Your task to perform on an android device: toggle location history Image 0: 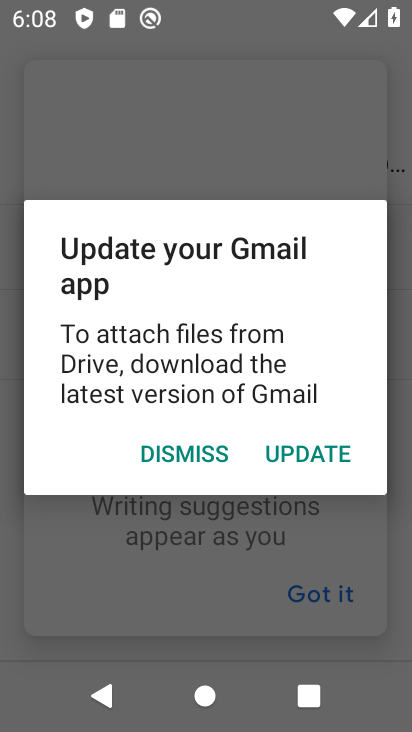
Step 0: press home button
Your task to perform on an android device: toggle location history Image 1: 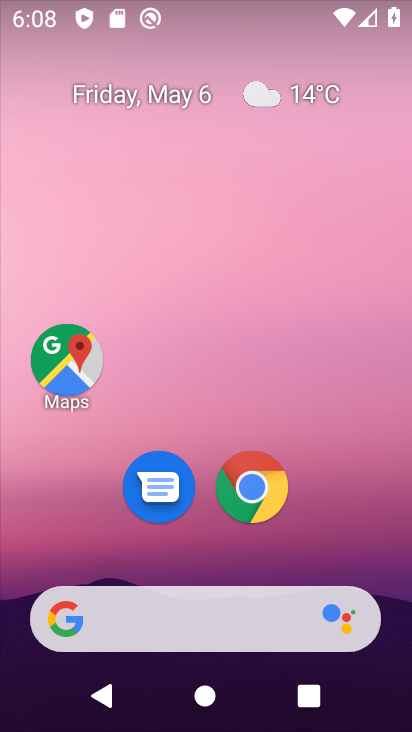
Step 1: drag from (326, 539) to (338, 136)
Your task to perform on an android device: toggle location history Image 2: 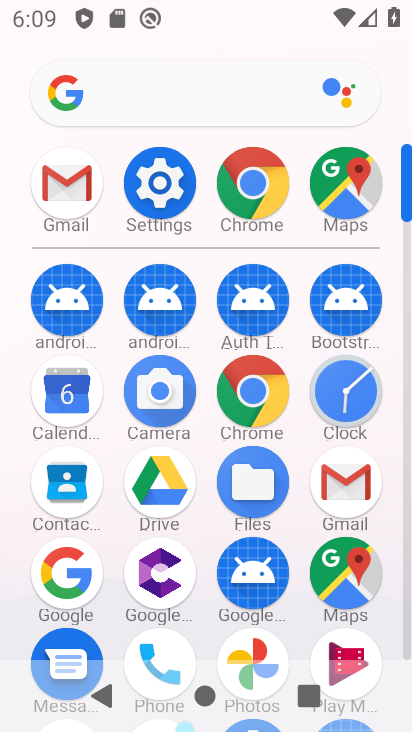
Step 2: click (339, 574)
Your task to perform on an android device: toggle location history Image 3: 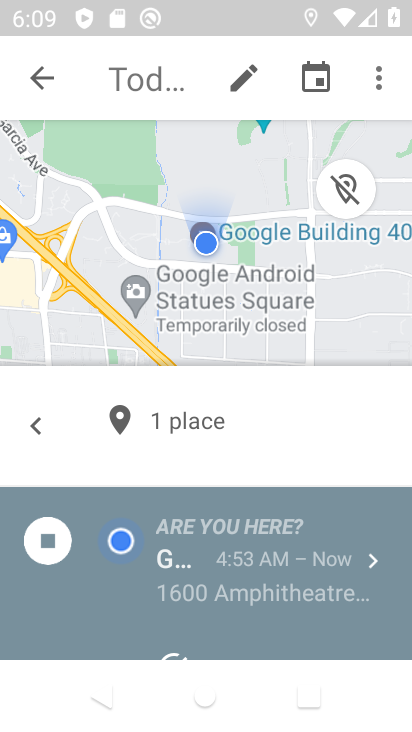
Step 3: click (377, 73)
Your task to perform on an android device: toggle location history Image 4: 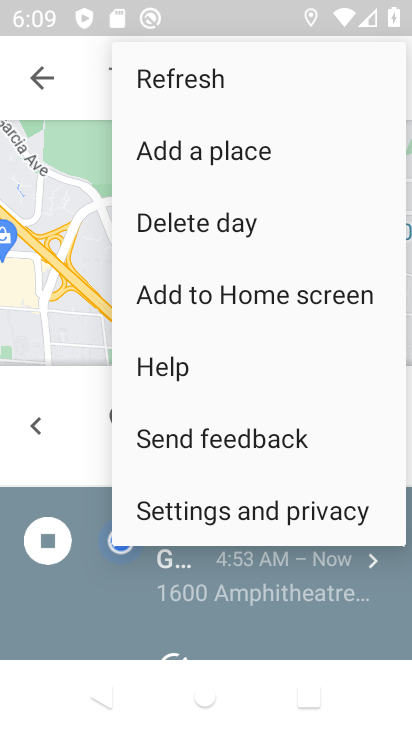
Step 4: click (301, 509)
Your task to perform on an android device: toggle location history Image 5: 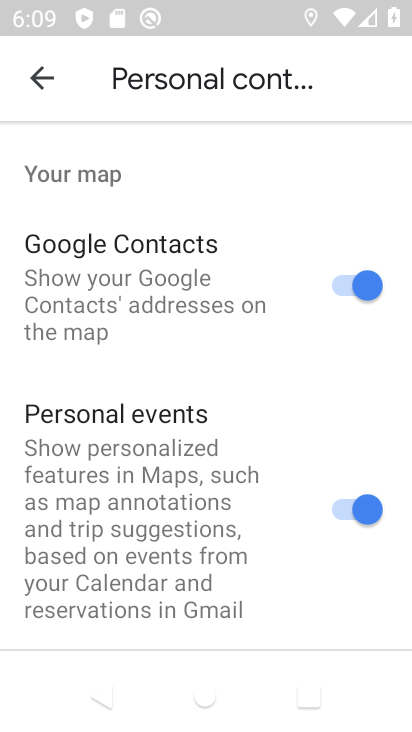
Step 5: drag from (255, 410) to (281, 195)
Your task to perform on an android device: toggle location history Image 6: 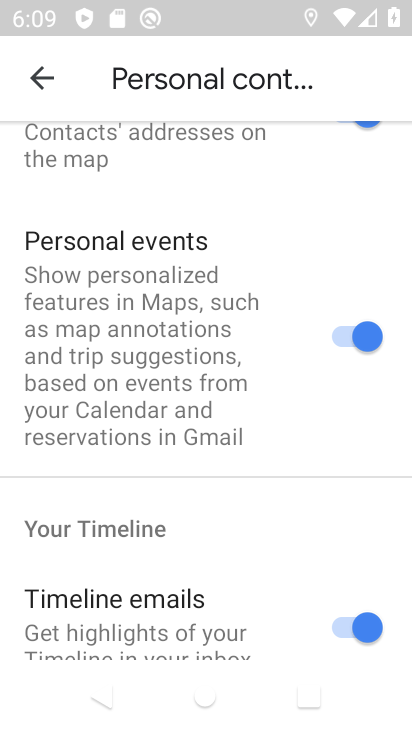
Step 6: drag from (253, 555) to (291, 221)
Your task to perform on an android device: toggle location history Image 7: 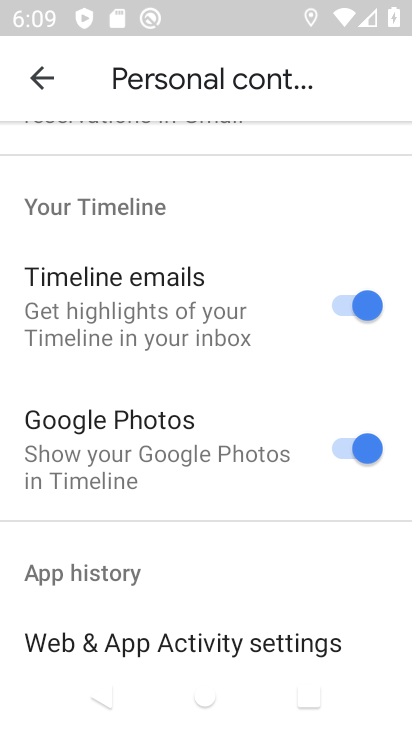
Step 7: drag from (226, 559) to (262, 281)
Your task to perform on an android device: toggle location history Image 8: 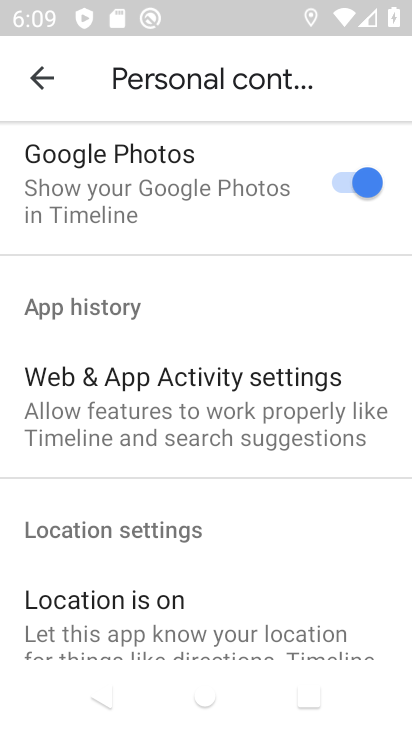
Step 8: drag from (264, 572) to (276, 253)
Your task to perform on an android device: toggle location history Image 9: 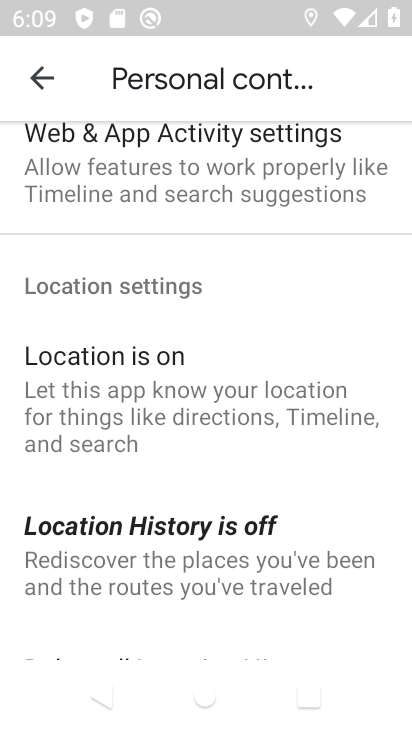
Step 9: click (199, 537)
Your task to perform on an android device: toggle location history Image 10: 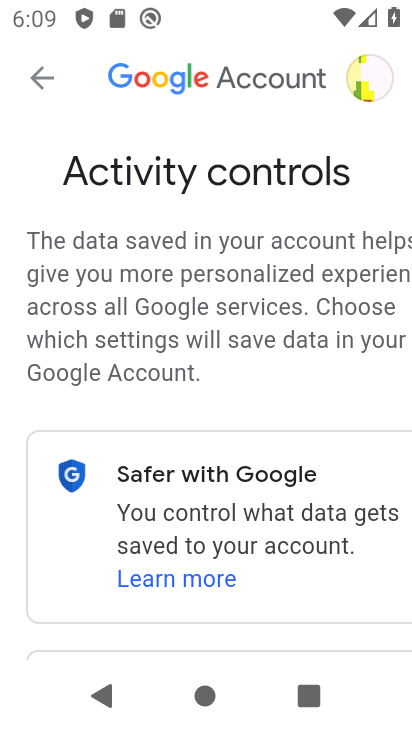
Step 10: drag from (283, 621) to (315, 147)
Your task to perform on an android device: toggle location history Image 11: 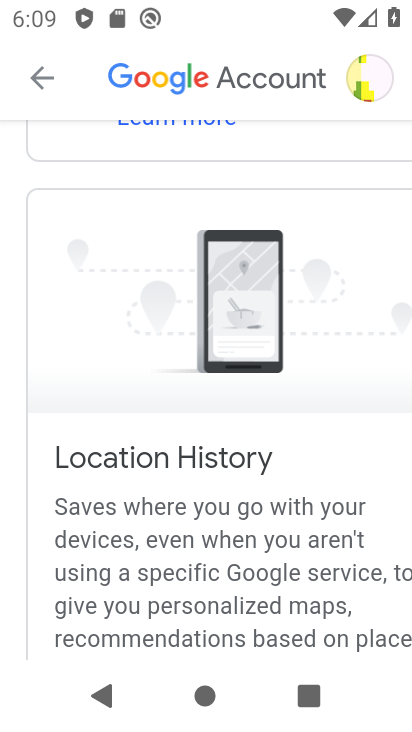
Step 11: drag from (250, 568) to (324, 263)
Your task to perform on an android device: toggle location history Image 12: 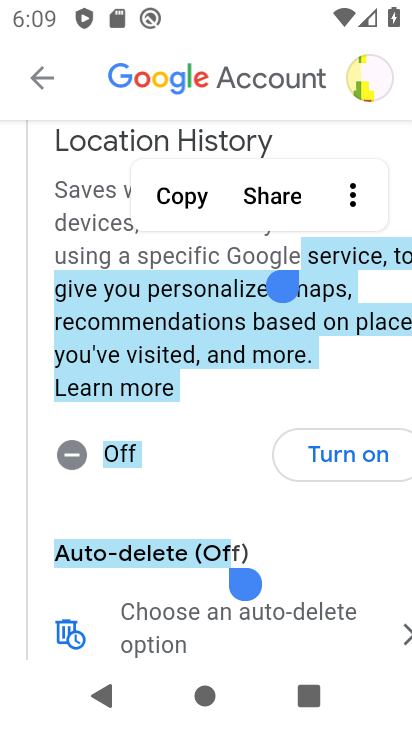
Step 12: click (358, 441)
Your task to perform on an android device: toggle location history Image 13: 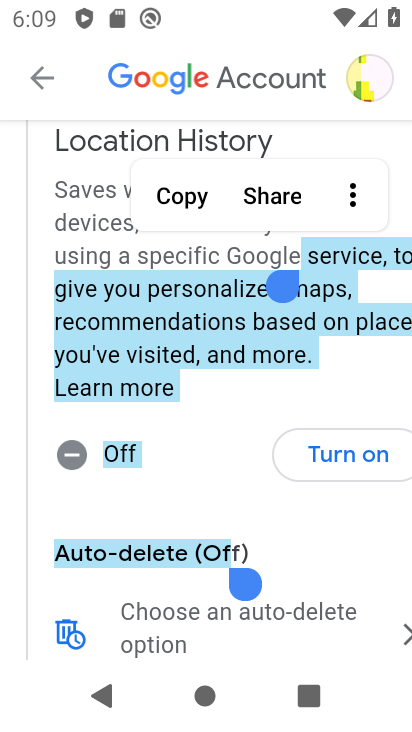
Step 13: click (342, 459)
Your task to perform on an android device: toggle location history Image 14: 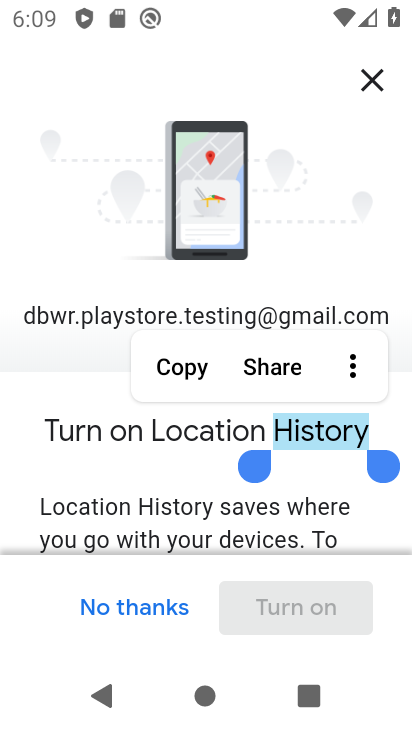
Step 14: click (21, 466)
Your task to perform on an android device: toggle location history Image 15: 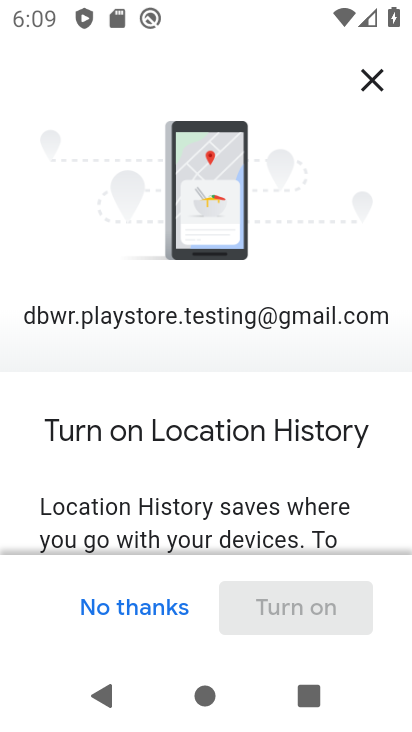
Step 15: drag from (184, 504) to (274, 288)
Your task to perform on an android device: toggle location history Image 16: 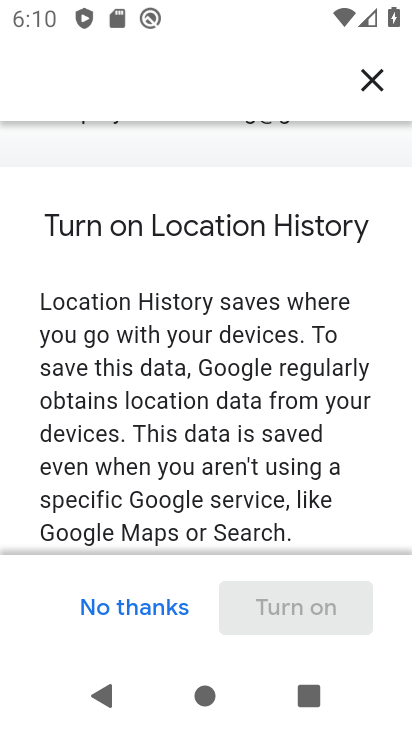
Step 16: click (298, 602)
Your task to perform on an android device: toggle location history Image 17: 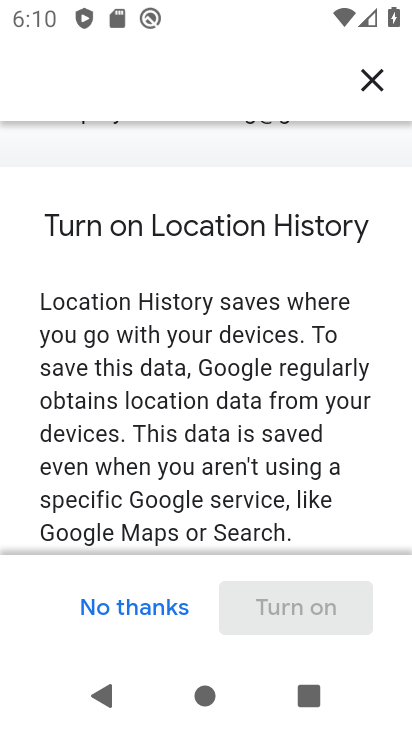
Step 17: drag from (329, 511) to (393, 184)
Your task to perform on an android device: toggle location history Image 18: 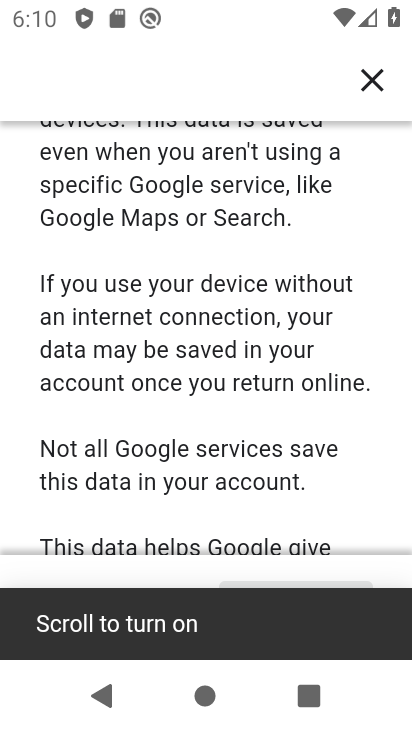
Step 18: drag from (278, 340) to (290, 165)
Your task to perform on an android device: toggle location history Image 19: 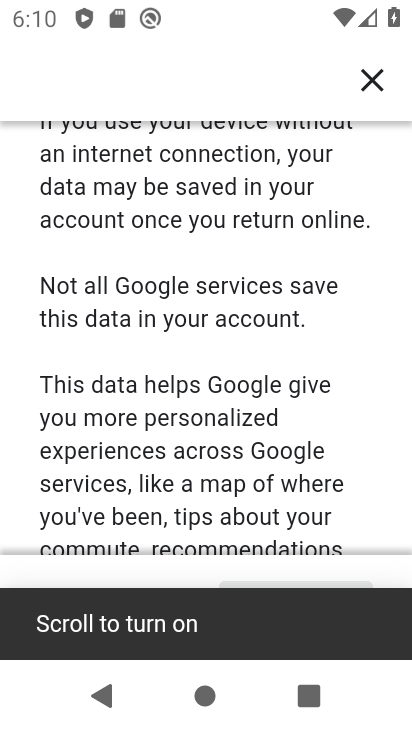
Step 19: drag from (209, 324) to (230, 235)
Your task to perform on an android device: toggle location history Image 20: 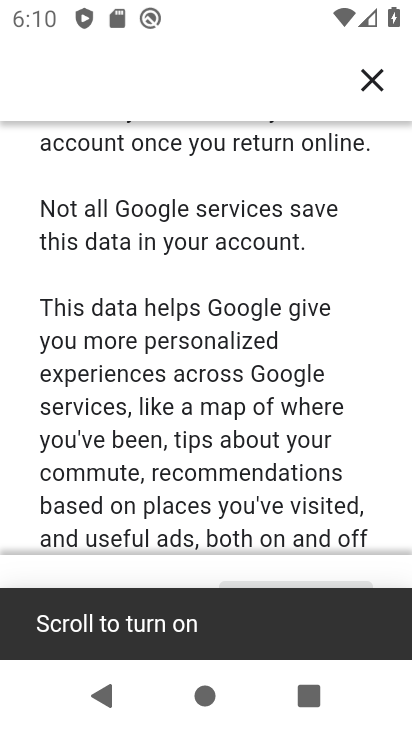
Step 20: click (255, 182)
Your task to perform on an android device: toggle location history Image 21: 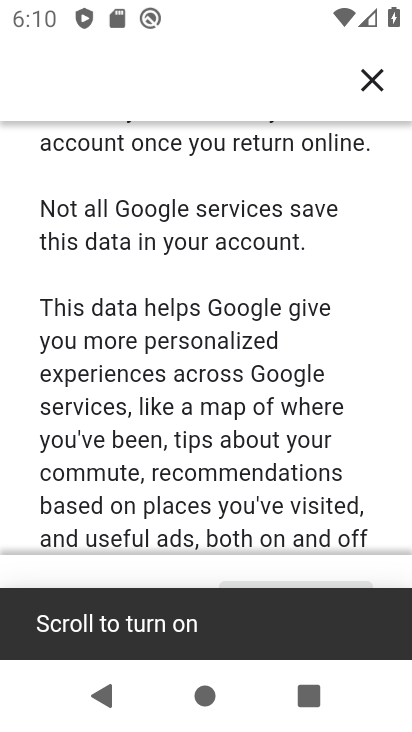
Step 21: click (351, 560)
Your task to perform on an android device: toggle location history Image 22: 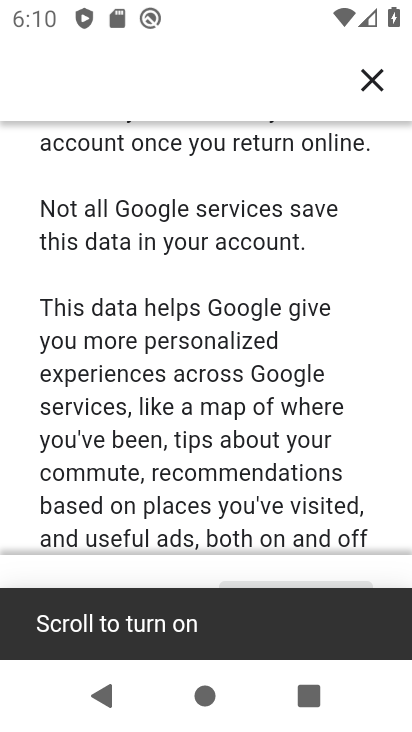
Step 22: drag from (364, 508) to (380, 170)
Your task to perform on an android device: toggle location history Image 23: 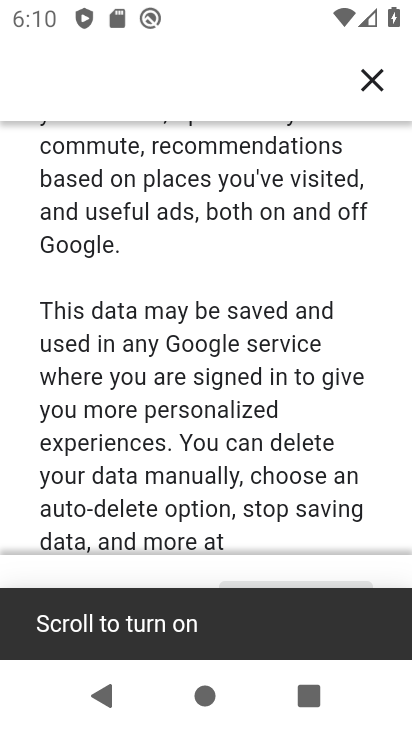
Step 23: drag from (312, 485) to (375, 149)
Your task to perform on an android device: toggle location history Image 24: 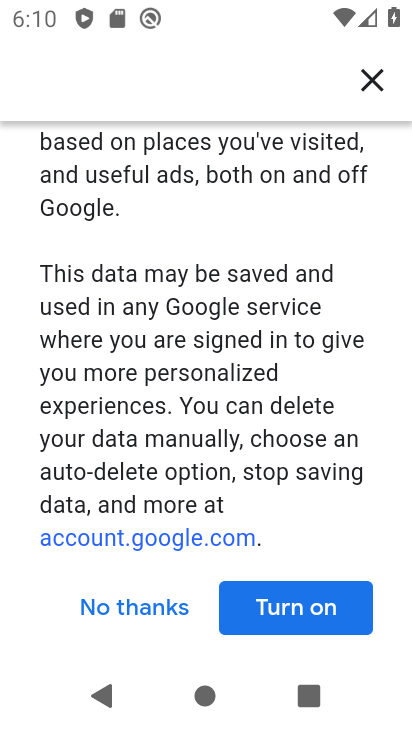
Step 24: click (336, 609)
Your task to perform on an android device: toggle location history Image 25: 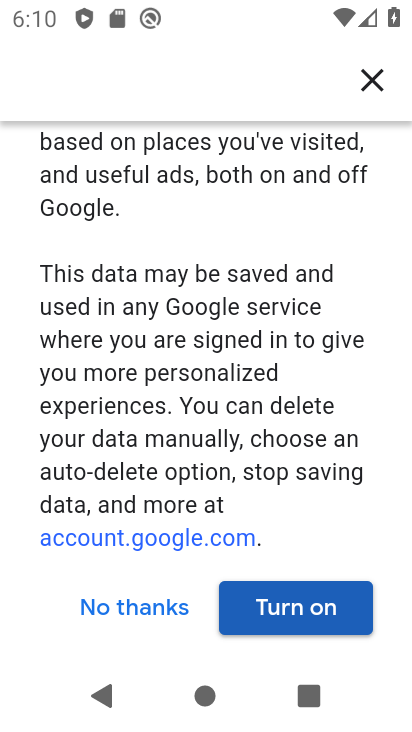
Step 25: click (277, 606)
Your task to perform on an android device: toggle location history Image 26: 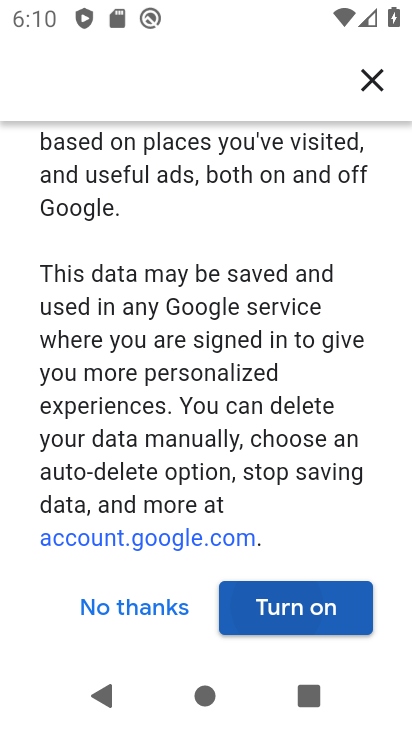
Step 26: click (277, 606)
Your task to perform on an android device: toggle location history Image 27: 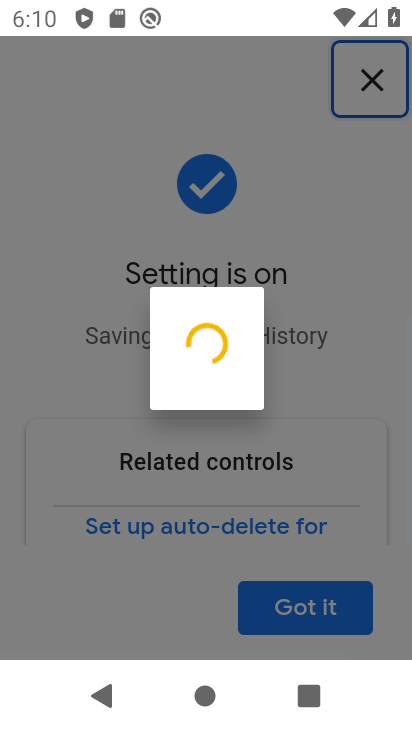
Step 27: click (301, 616)
Your task to perform on an android device: toggle location history Image 28: 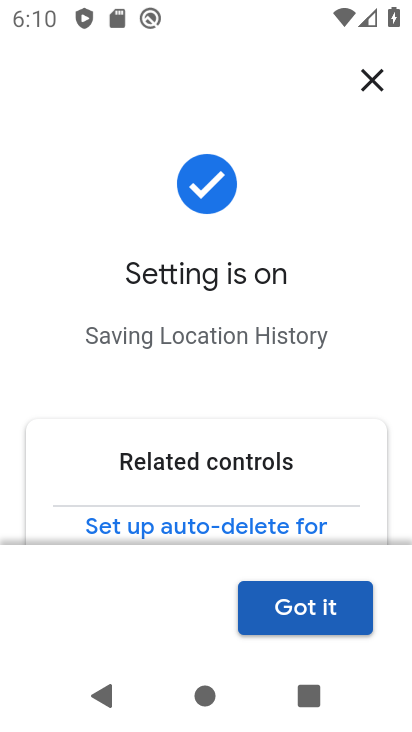
Step 28: click (318, 603)
Your task to perform on an android device: toggle location history Image 29: 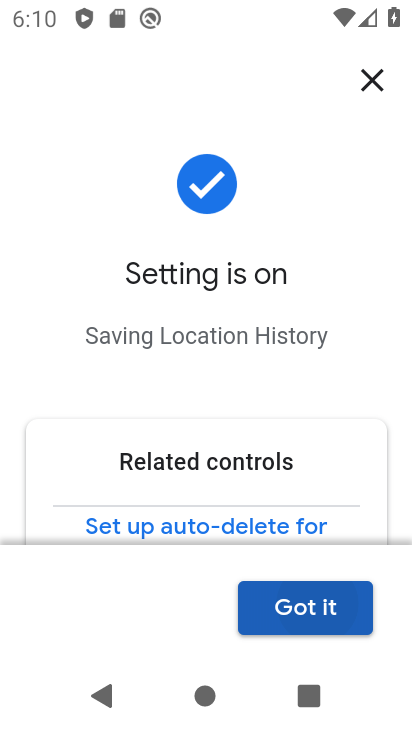
Step 29: click (318, 603)
Your task to perform on an android device: toggle location history Image 30: 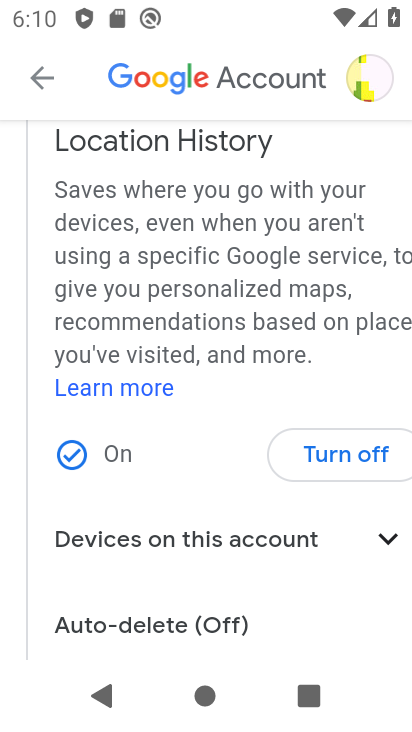
Step 30: task complete